Your task to perform on an android device: Go to location settings Image 0: 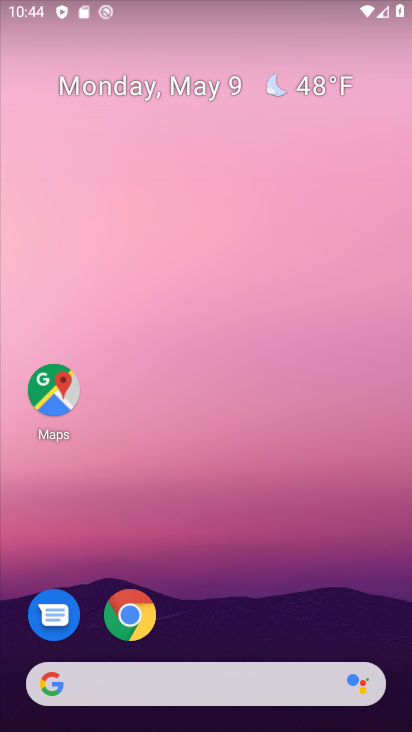
Step 0: drag from (190, 524) to (256, 22)
Your task to perform on an android device: Go to location settings Image 1: 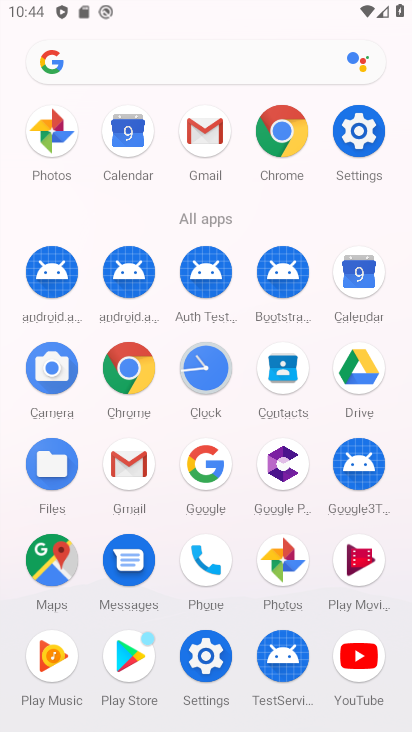
Step 1: click (360, 144)
Your task to perform on an android device: Go to location settings Image 2: 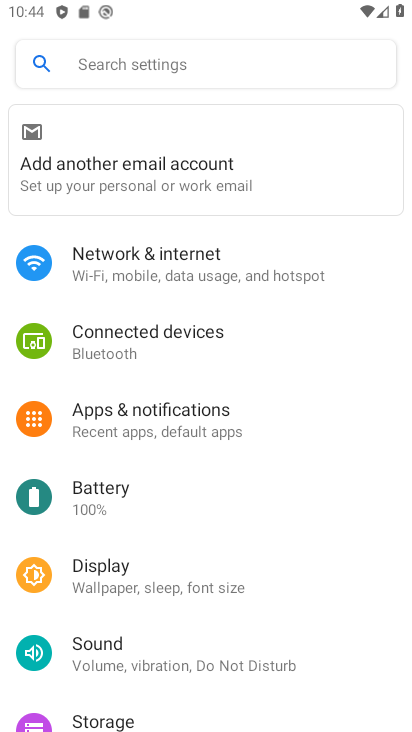
Step 2: drag from (150, 664) to (229, 243)
Your task to perform on an android device: Go to location settings Image 3: 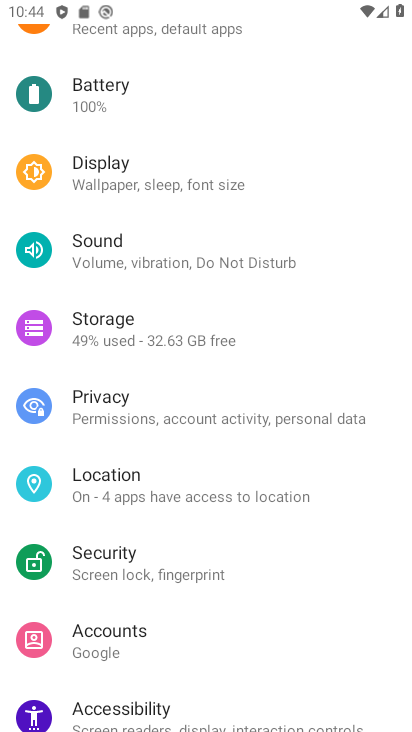
Step 3: click (161, 471)
Your task to perform on an android device: Go to location settings Image 4: 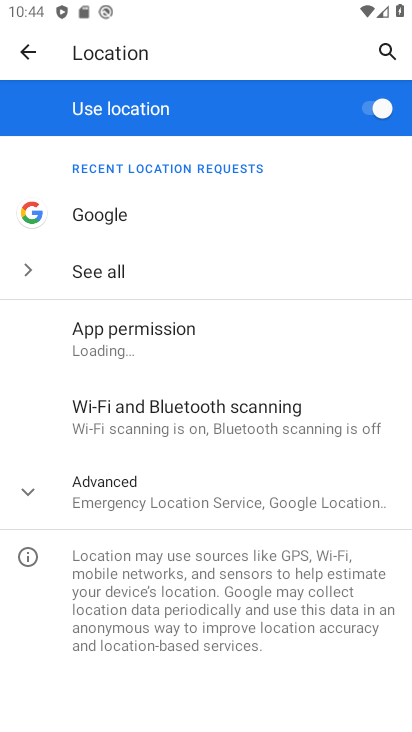
Step 4: task complete